Your task to perform on an android device: turn on the 12-hour format for clock Image 0: 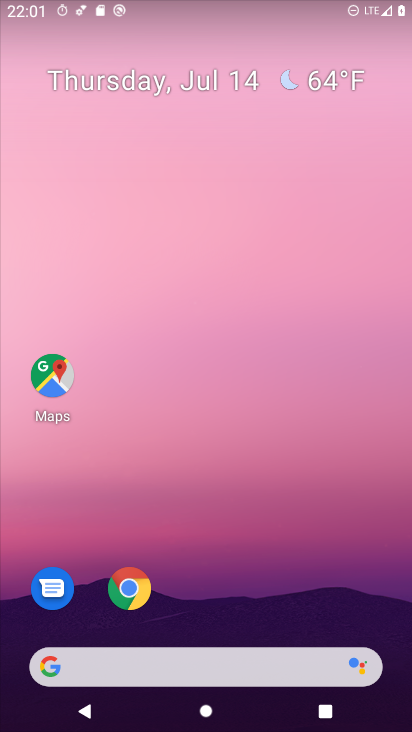
Step 0: drag from (331, 610) to (323, 103)
Your task to perform on an android device: turn on the 12-hour format for clock Image 1: 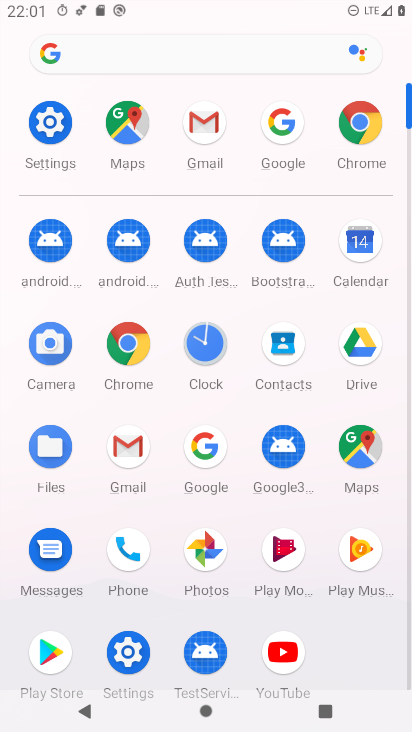
Step 1: click (209, 341)
Your task to perform on an android device: turn on the 12-hour format for clock Image 2: 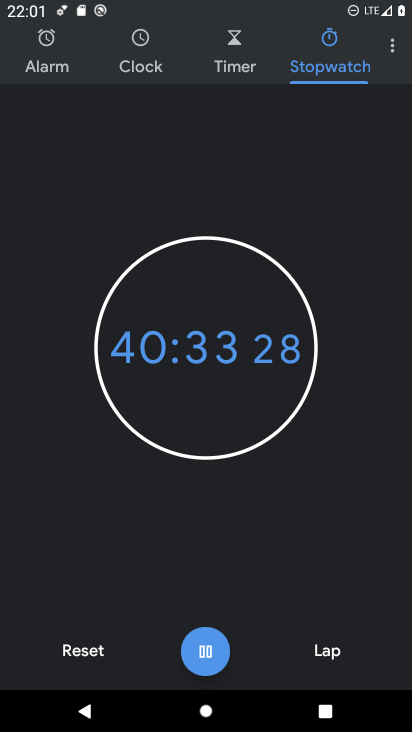
Step 2: click (394, 49)
Your task to perform on an android device: turn on the 12-hour format for clock Image 3: 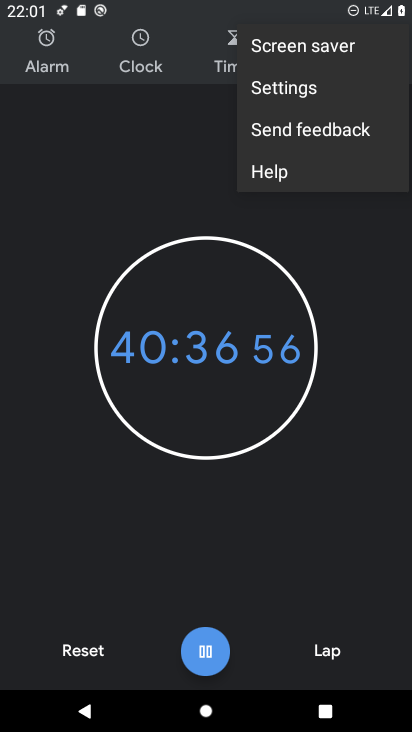
Step 3: click (335, 85)
Your task to perform on an android device: turn on the 12-hour format for clock Image 4: 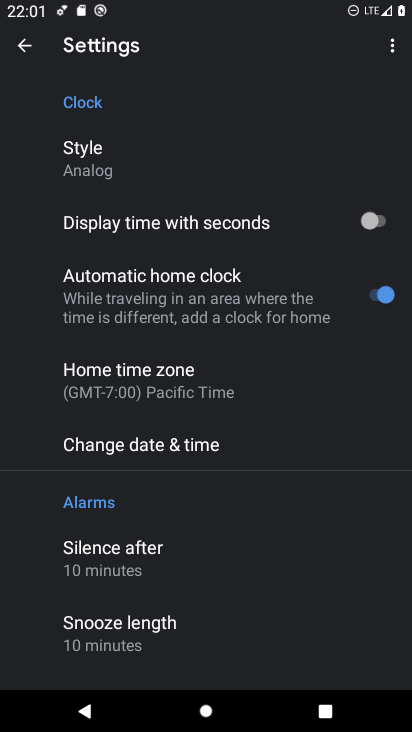
Step 4: drag from (306, 515) to (305, 402)
Your task to perform on an android device: turn on the 12-hour format for clock Image 5: 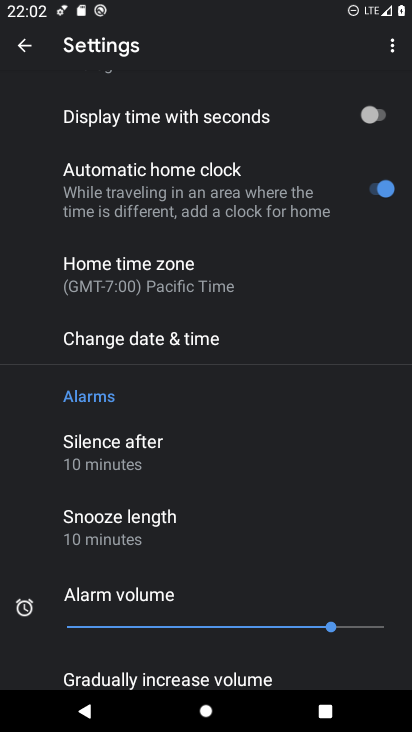
Step 5: drag from (319, 506) to (319, 396)
Your task to perform on an android device: turn on the 12-hour format for clock Image 6: 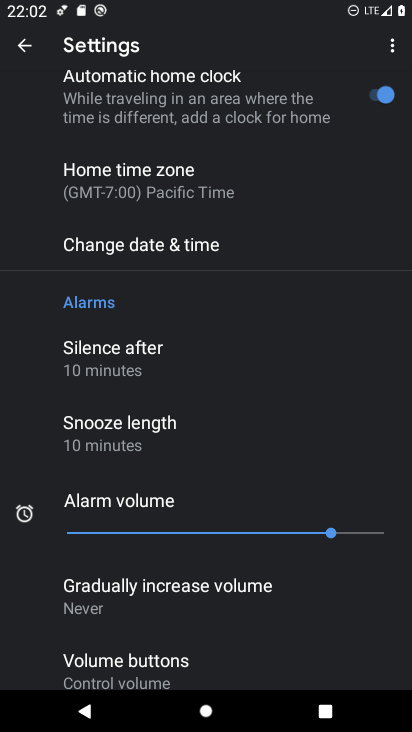
Step 6: drag from (347, 588) to (360, 475)
Your task to perform on an android device: turn on the 12-hour format for clock Image 7: 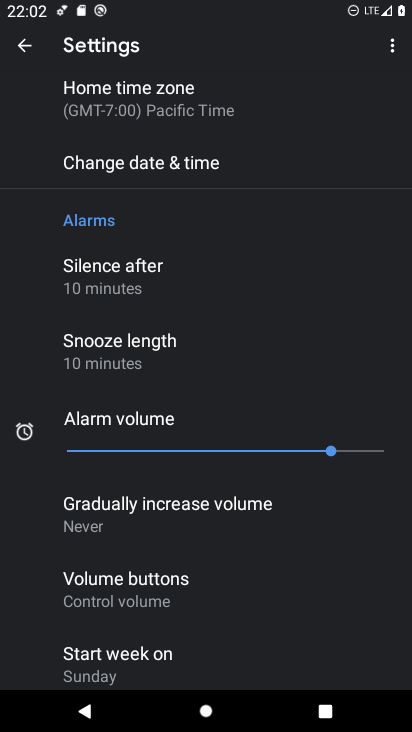
Step 7: drag from (356, 555) to (376, 459)
Your task to perform on an android device: turn on the 12-hour format for clock Image 8: 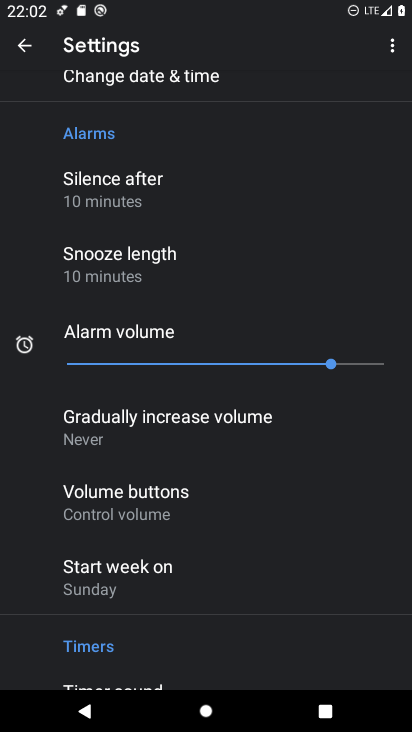
Step 8: drag from (347, 597) to (344, 521)
Your task to perform on an android device: turn on the 12-hour format for clock Image 9: 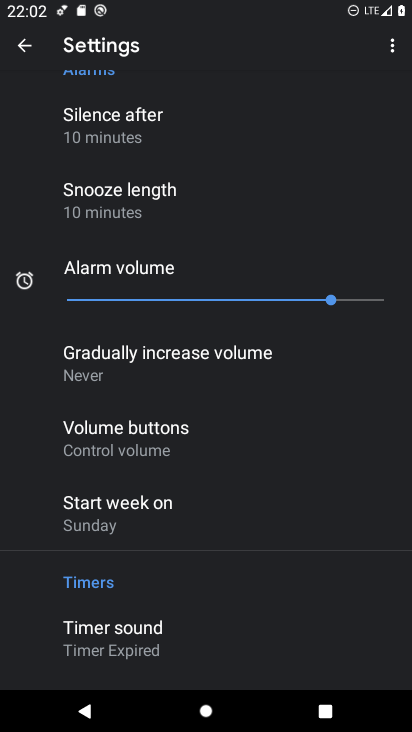
Step 9: drag from (343, 591) to (355, 457)
Your task to perform on an android device: turn on the 12-hour format for clock Image 10: 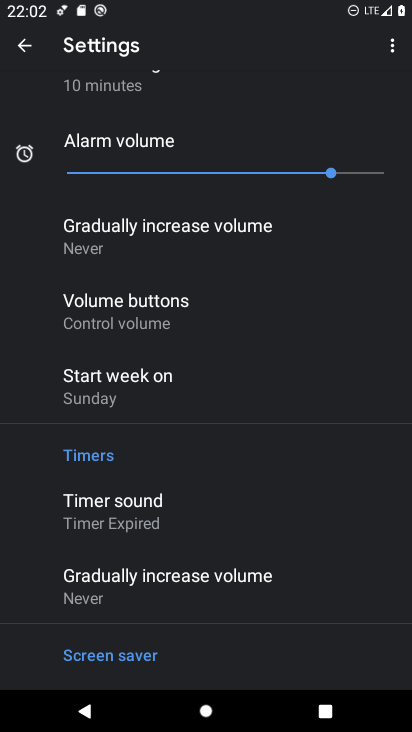
Step 10: drag from (366, 592) to (362, 464)
Your task to perform on an android device: turn on the 12-hour format for clock Image 11: 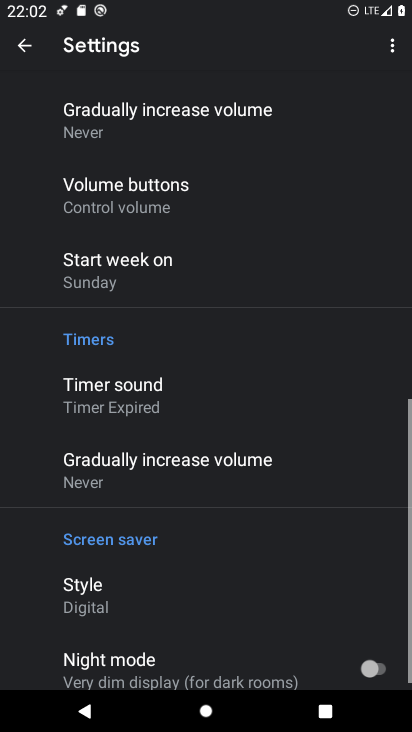
Step 11: drag from (358, 335) to (365, 438)
Your task to perform on an android device: turn on the 12-hour format for clock Image 12: 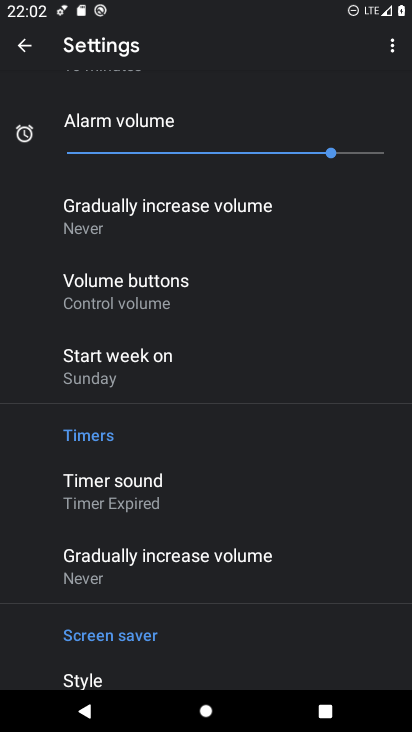
Step 12: drag from (372, 310) to (373, 416)
Your task to perform on an android device: turn on the 12-hour format for clock Image 13: 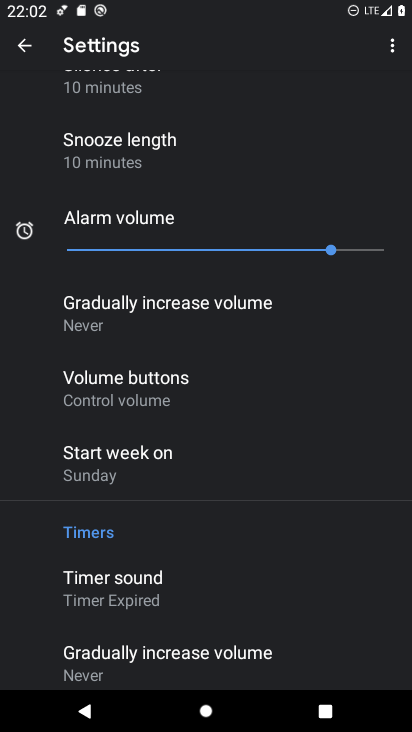
Step 13: drag from (359, 288) to (359, 425)
Your task to perform on an android device: turn on the 12-hour format for clock Image 14: 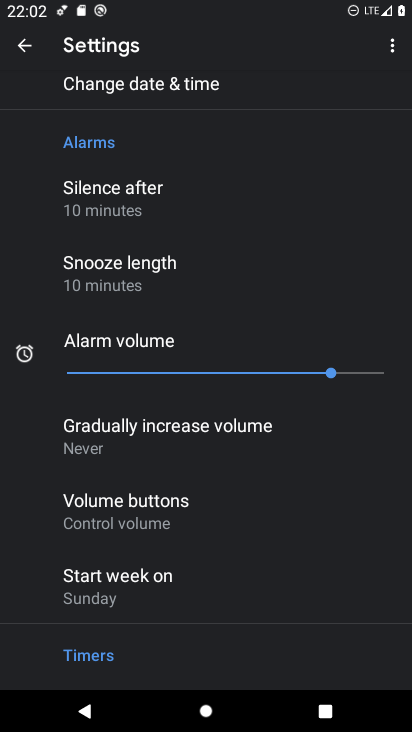
Step 14: drag from (351, 258) to (351, 424)
Your task to perform on an android device: turn on the 12-hour format for clock Image 15: 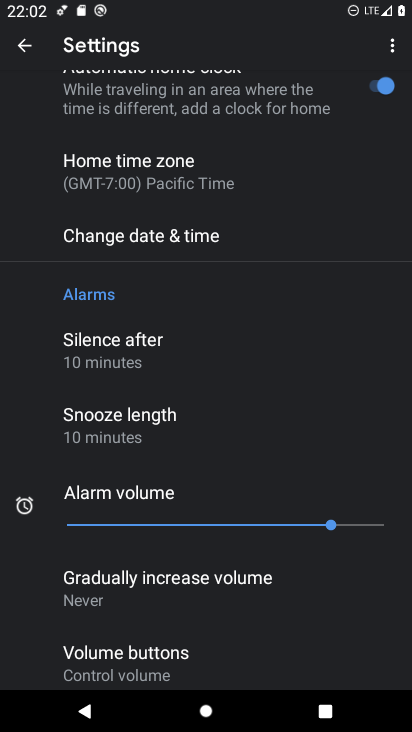
Step 15: click (291, 244)
Your task to perform on an android device: turn on the 12-hour format for clock Image 16: 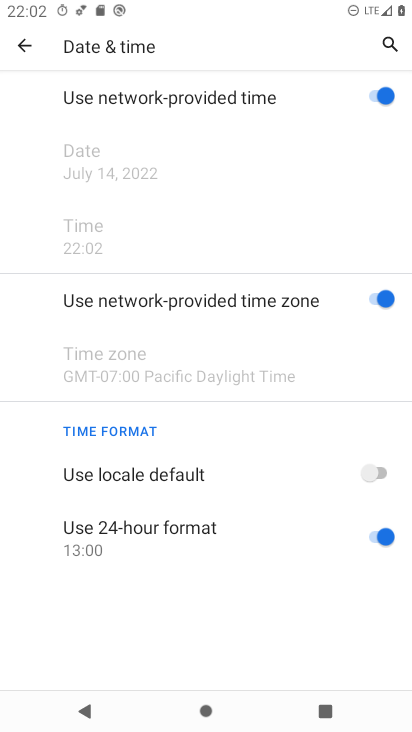
Step 16: click (378, 535)
Your task to perform on an android device: turn on the 12-hour format for clock Image 17: 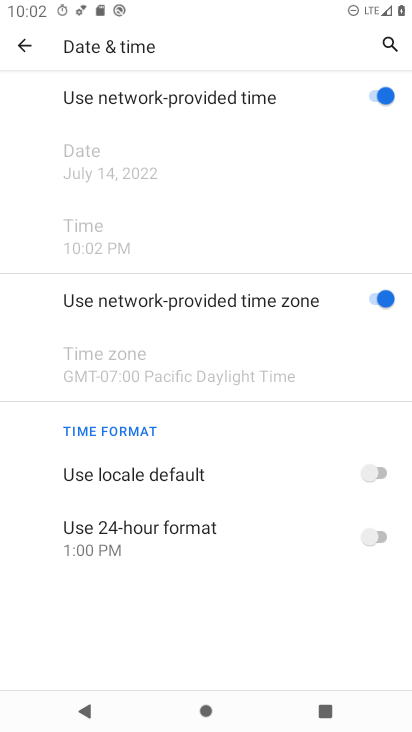
Step 17: task complete